Your task to perform on an android device: toggle notification dots Image 0: 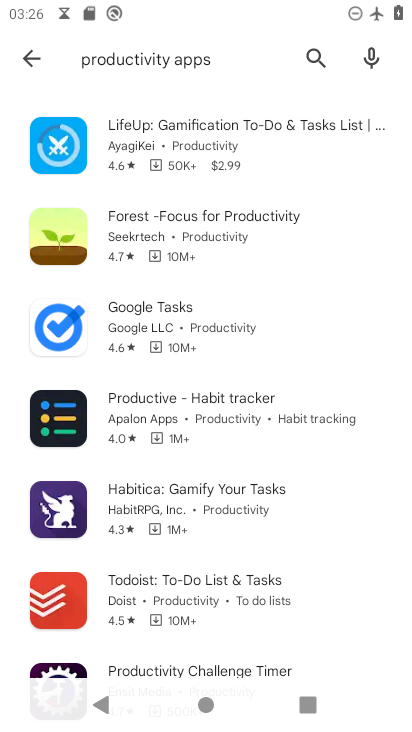
Step 0: press home button
Your task to perform on an android device: toggle notification dots Image 1: 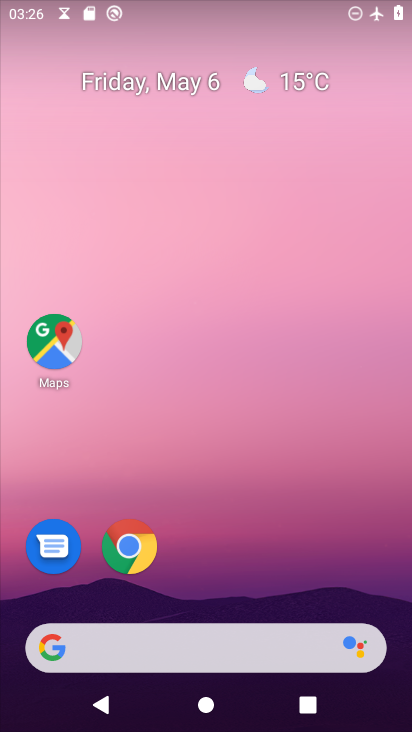
Step 1: drag from (205, 564) to (200, 168)
Your task to perform on an android device: toggle notification dots Image 2: 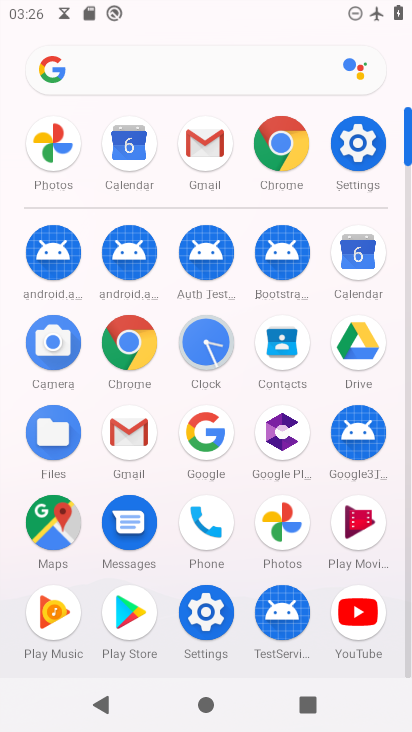
Step 2: click (353, 143)
Your task to perform on an android device: toggle notification dots Image 3: 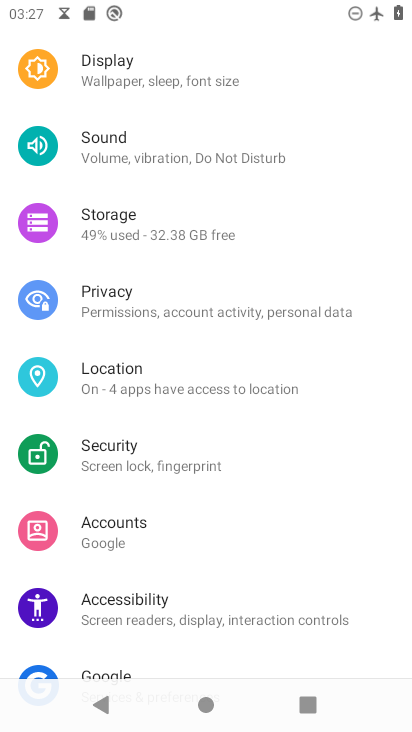
Step 3: drag from (176, 280) to (175, 488)
Your task to perform on an android device: toggle notification dots Image 4: 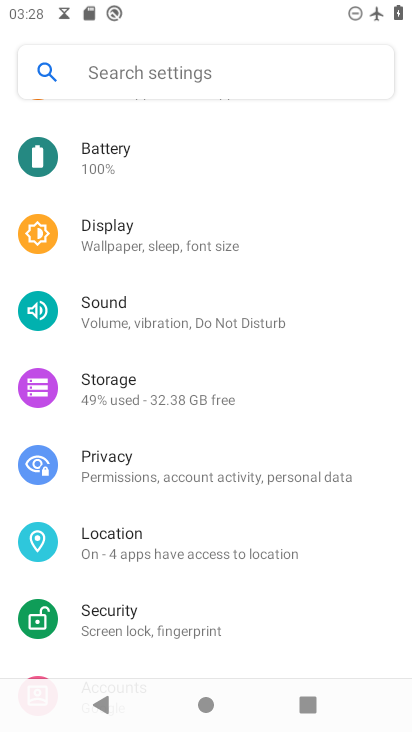
Step 4: drag from (221, 331) to (211, 585)
Your task to perform on an android device: toggle notification dots Image 5: 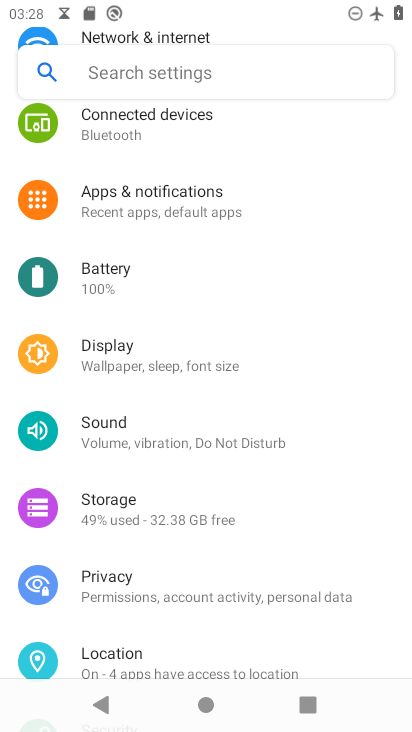
Step 5: click (153, 208)
Your task to perform on an android device: toggle notification dots Image 6: 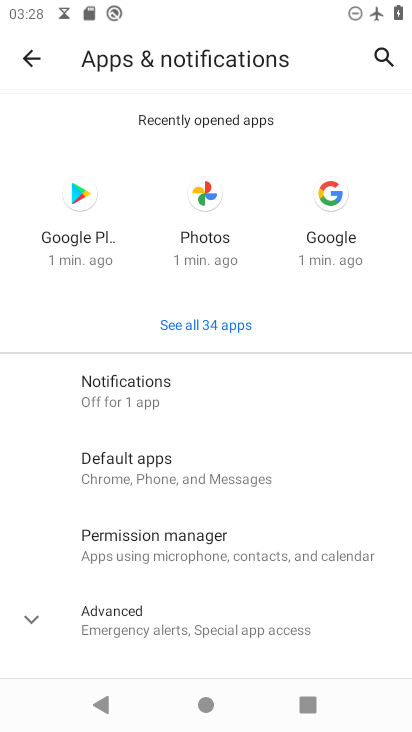
Step 6: click (181, 402)
Your task to perform on an android device: toggle notification dots Image 7: 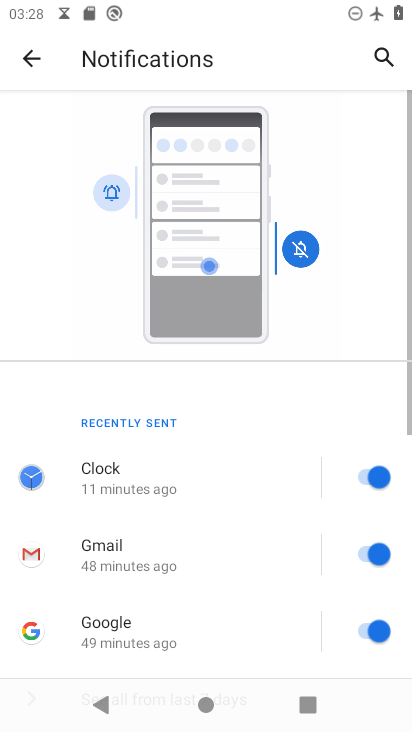
Step 7: drag from (220, 617) to (220, 261)
Your task to perform on an android device: toggle notification dots Image 8: 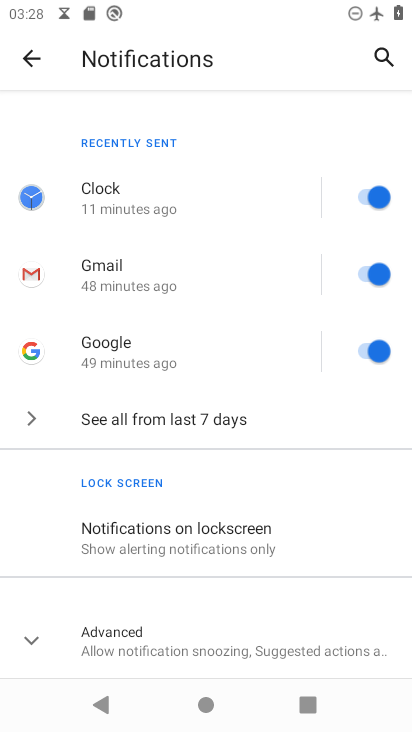
Step 8: click (170, 648)
Your task to perform on an android device: toggle notification dots Image 9: 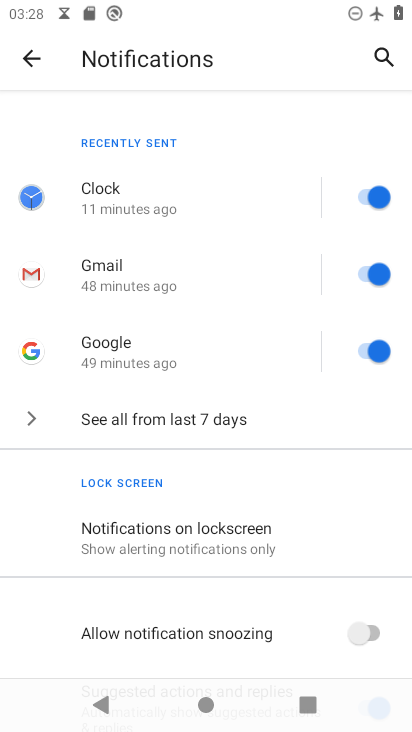
Step 9: drag from (157, 618) to (157, 411)
Your task to perform on an android device: toggle notification dots Image 10: 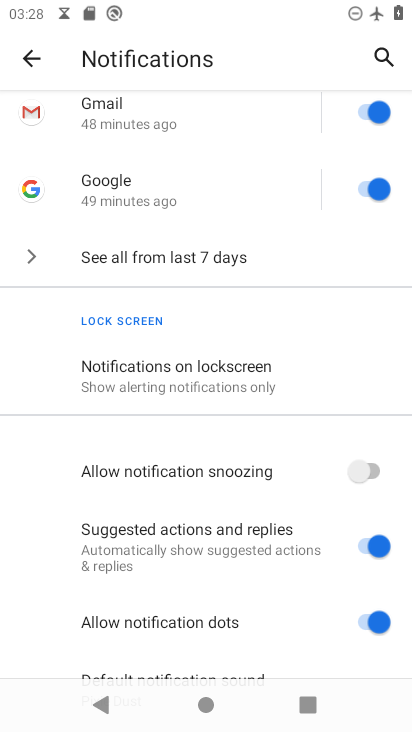
Step 10: click (367, 622)
Your task to perform on an android device: toggle notification dots Image 11: 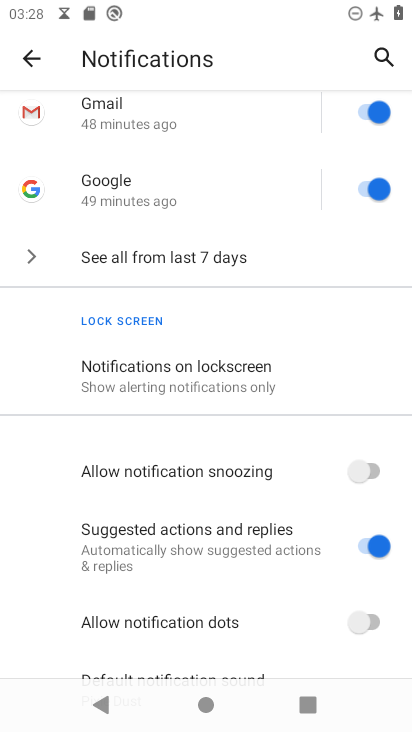
Step 11: task complete